Your task to perform on an android device: Go to Yahoo.com Image 0: 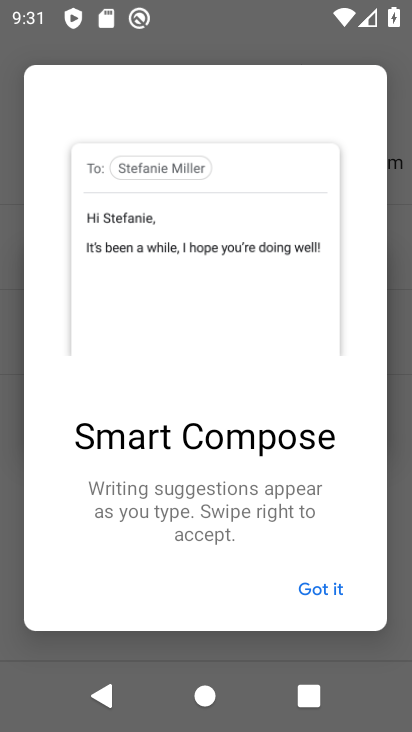
Step 0: press home button
Your task to perform on an android device: Go to Yahoo.com Image 1: 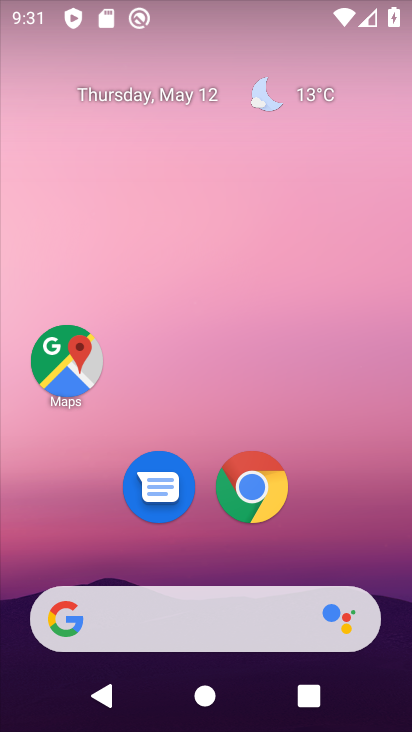
Step 1: click (254, 486)
Your task to perform on an android device: Go to Yahoo.com Image 2: 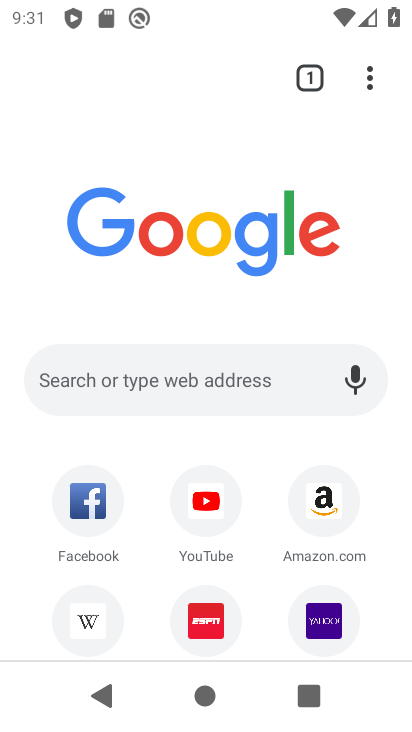
Step 2: click (322, 610)
Your task to perform on an android device: Go to Yahoo.com Image 3: 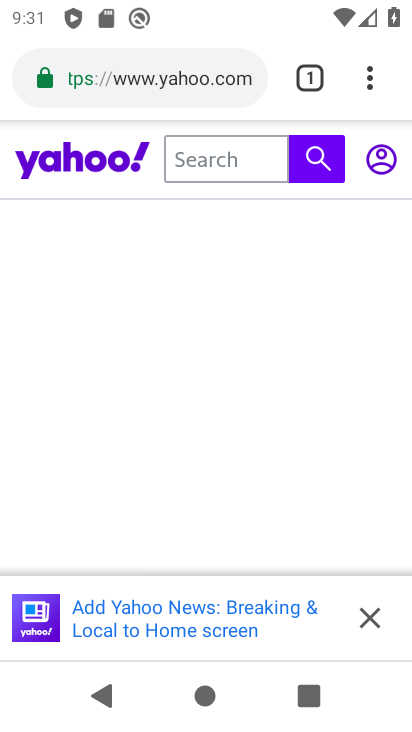
Step 3: task complete